Your task to perform on an android device: Check the news Image 0: 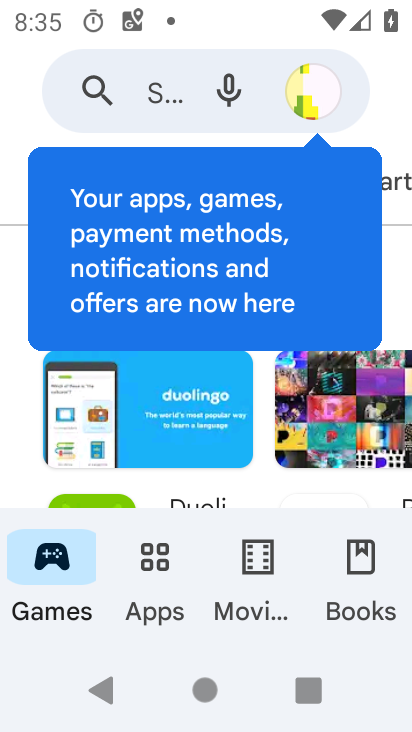
Step 0: press home button
Your task to perform on an android device: Check the news Image 1: 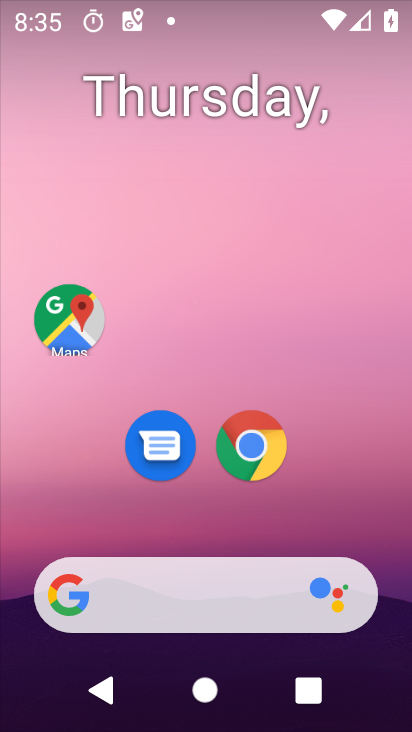
Step 1: click (146, 610)
Your task to perform on an android device: Check the news Image 2: 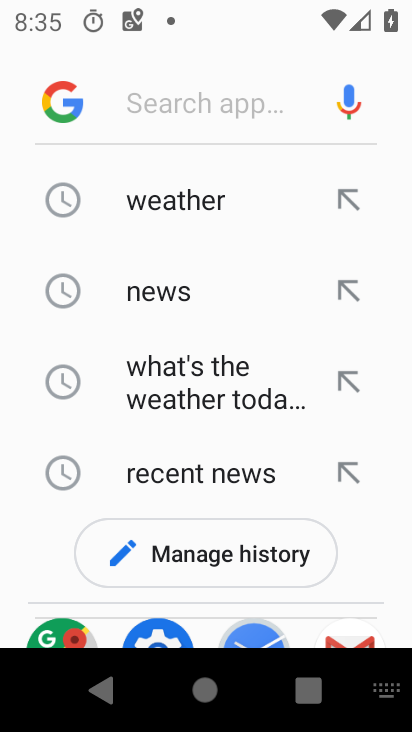
Step 2: click (154, 285)
Your task to perform on an android device: Check the news Image 3: 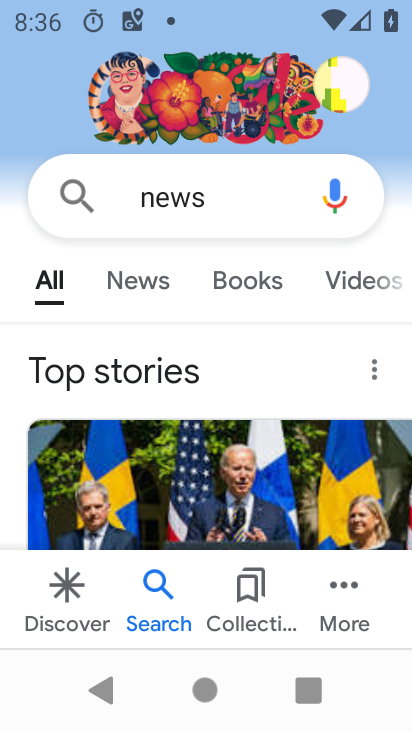
Step 3: task complete